Your task to perform on an android device: check storage Image 0: 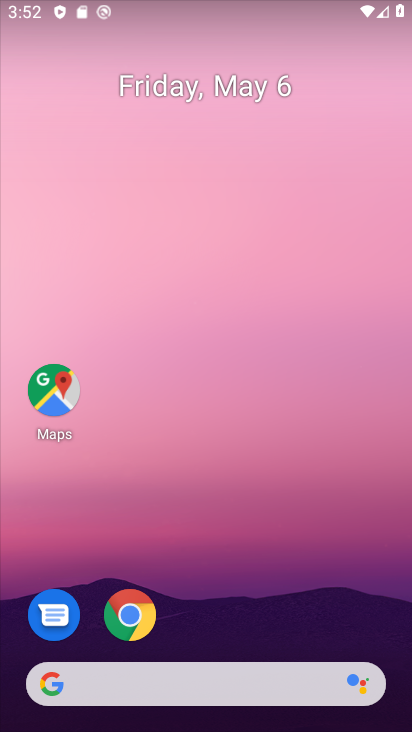
Step 0: drag from (221, 645) to (160, 0)
Your task to perform on an android device: check storage Image 1: 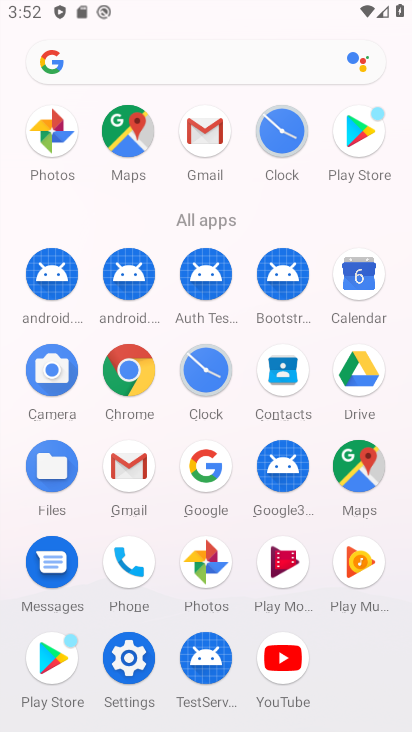
Step 1: click (128, 662)
Your task to perform on an android device: check storage Image 2: 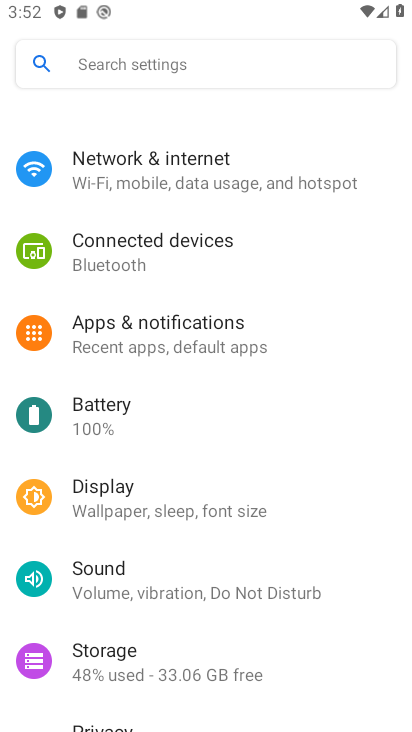
Step 2: drag from (178, 570) to (165, 186)
Your task to perform on an android device: check storage Image 3: 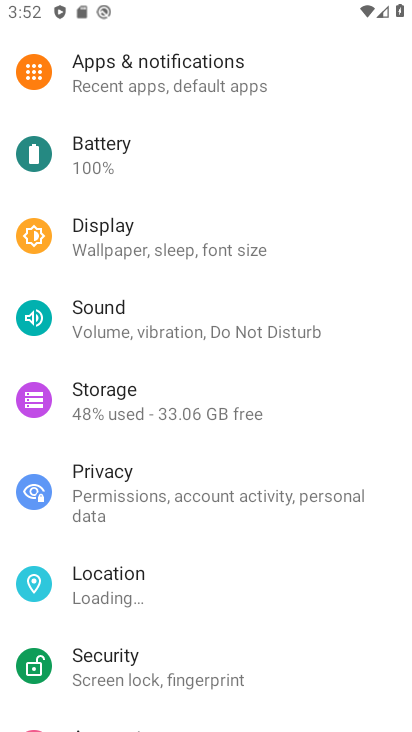
Step 3: click (98, 416)
Your task to perform on an android device: check storage Image 4: 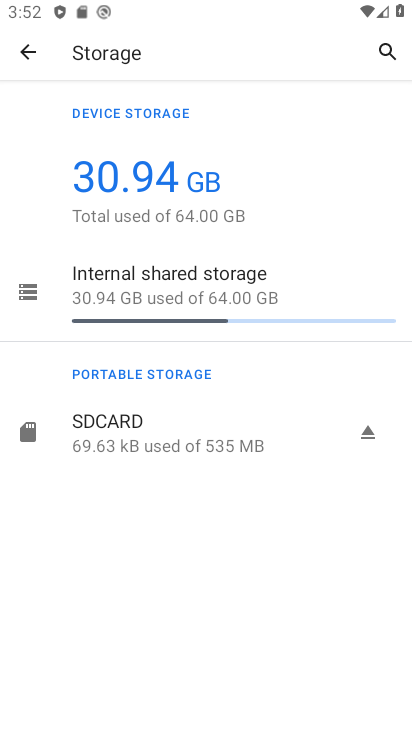
Step 4: task complete